Your task to perform on an android device: Go to CNN.com Image 0: 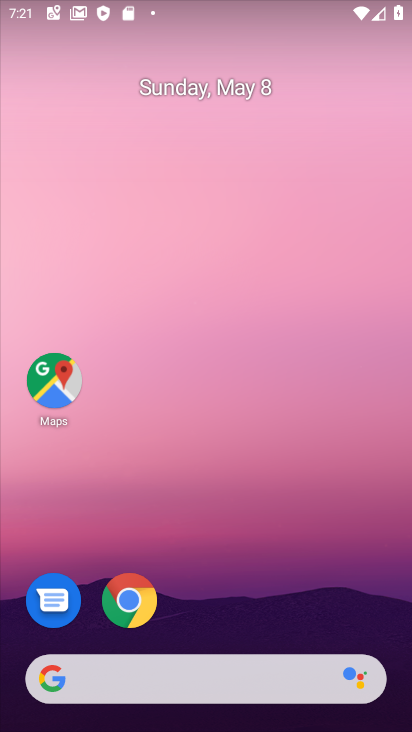
Step 0: drag from (314, 700) to (157, 271)
Your task to perform on an android device: Go to CNN.com Image 1: 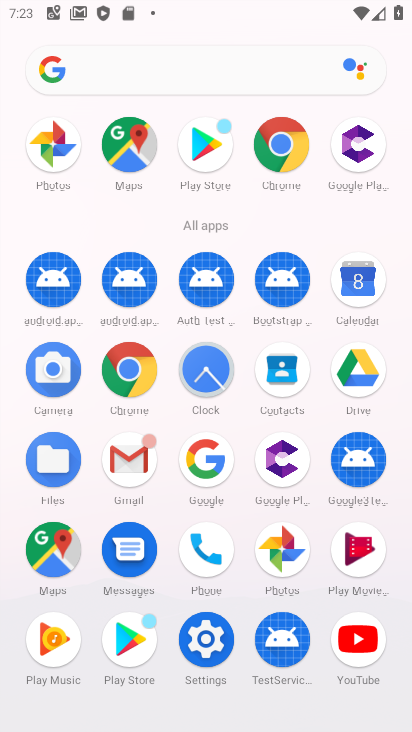
Step 1: click (138, 359)
Your task to perform on an android device: Go to CNN.com Image 2: 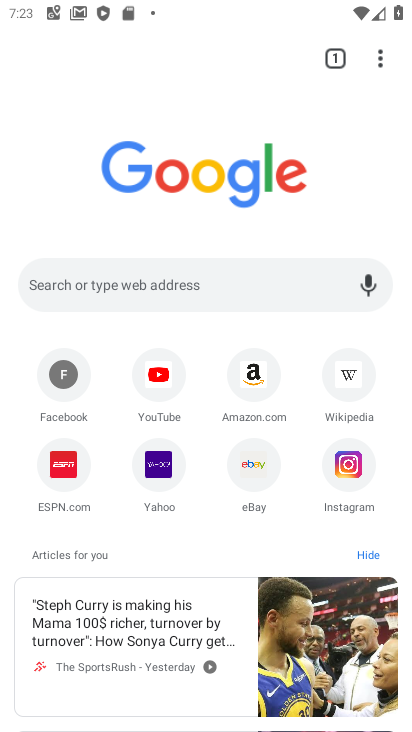
Step 2: click (107, 291)
Your task to perform on an android device: Go to CNN.com Image 3: 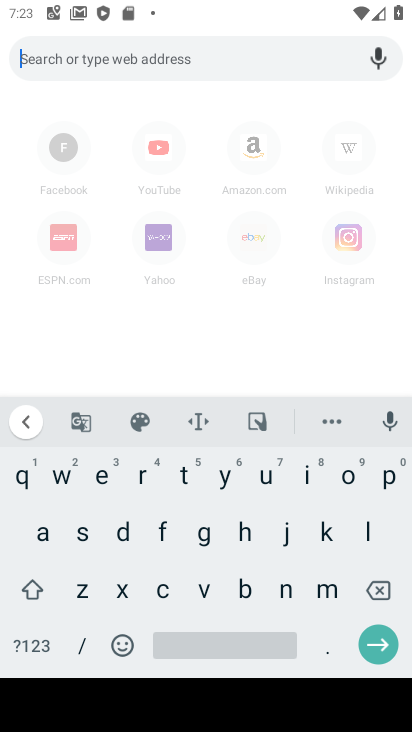
Step 3: click (165, 592)
Your task to perform on an android device: Go to CNN.com Image 4: 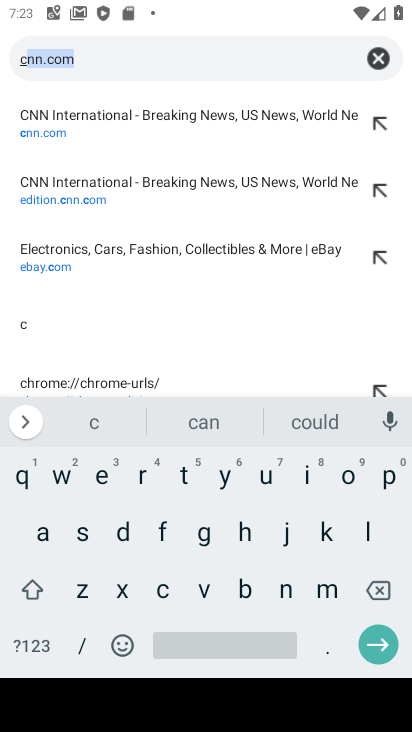
Step 4: click (289, 586)
Your task to perform on an android device: Go to CNN.com Image 5: 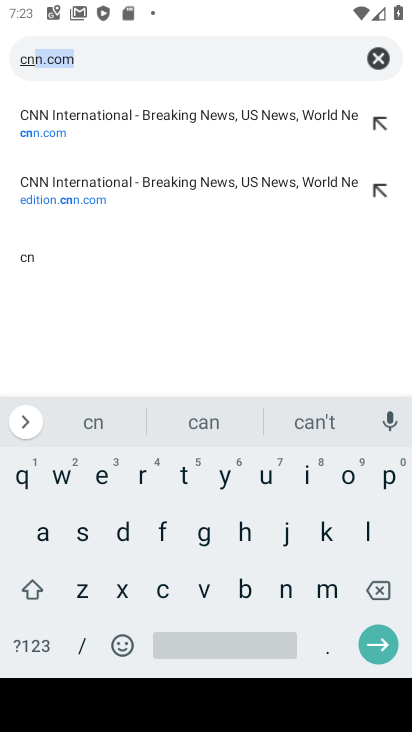
Step 5: click (101, 62)
Your task to perform on an android device: Go to CNN.com Image 6: 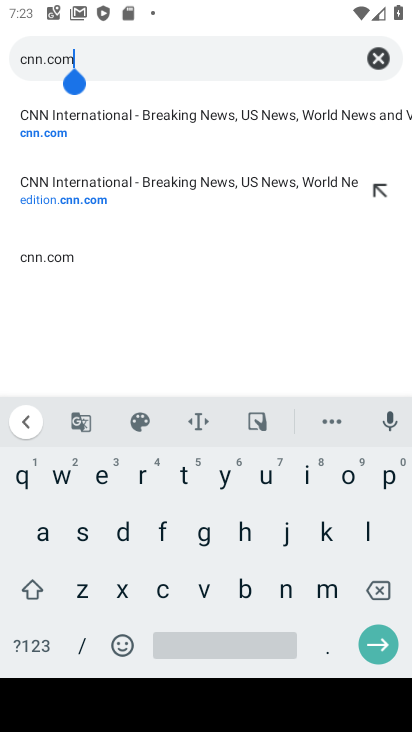
Step 6: click (374, 638)
Your task to perform on an android device: Go to CNN.com Image 7: 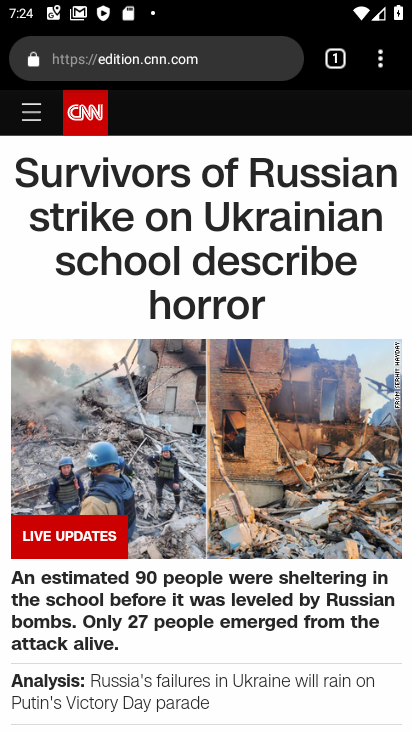
Step 7: task complete